Your task to perform on an android device: Check the weather Image 0: 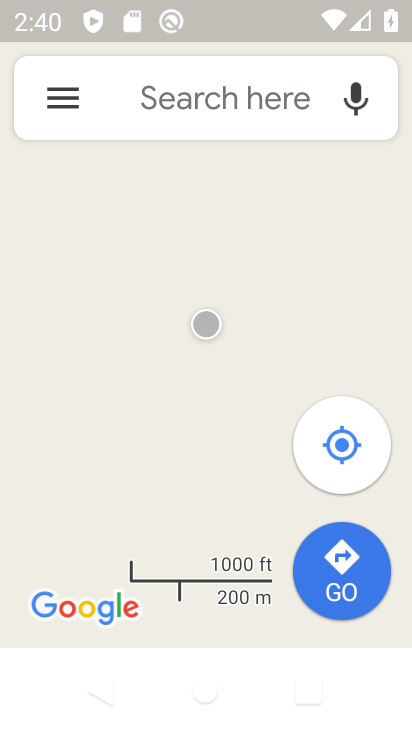
Step 0: press home button
Your task to perform on an android device: Check the weather Image 1: 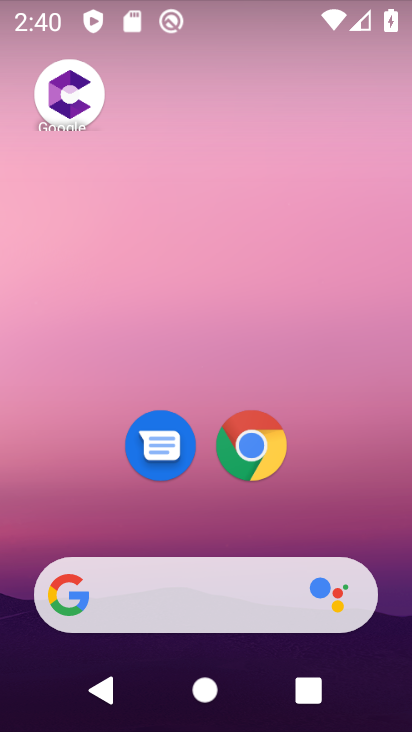
Step 1: drag from (185, 430) to (294, 55)
Your task to perform on an android device: Check the weather Image 2: 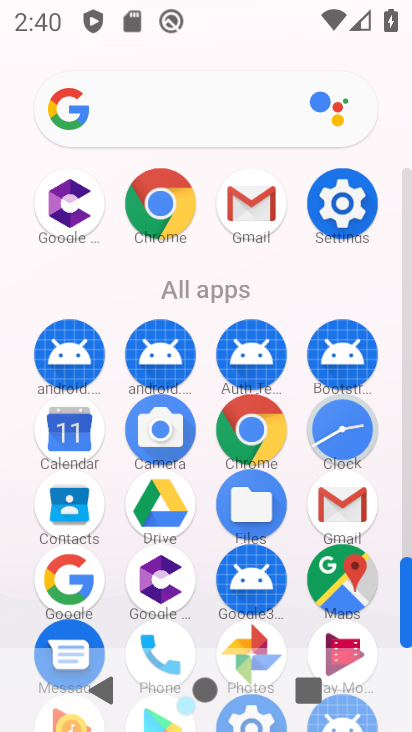
Step 2: click (75, 585)
Your task to perform on an android device: Check the weather Image 3: 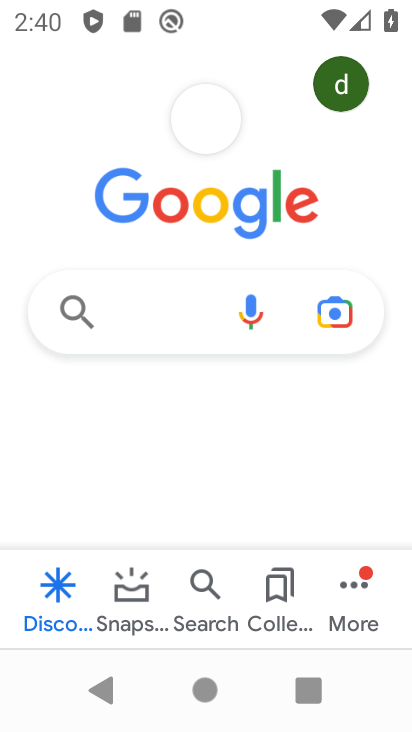
Step 3: click (187, 334)
Your task to perform on an android device: Check the weather Image 4: 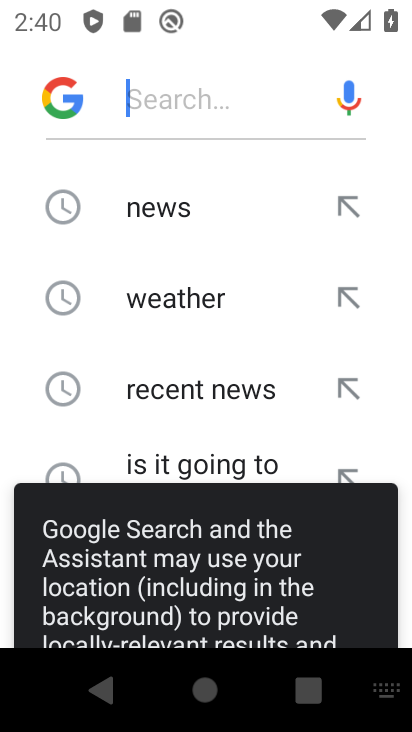
Step 4: click (198, 303)
Your task to perform on an android device: Check the weather Image 5: 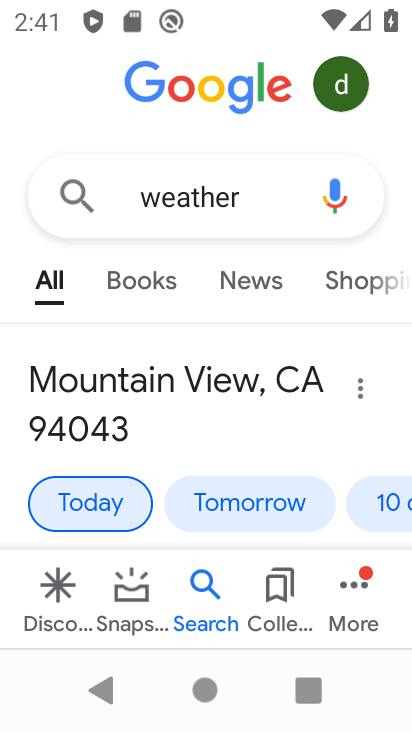
Step 5: task complete